Your task to perform on an android device: Add "alienware area 51" to the cart on amazon Image 0: 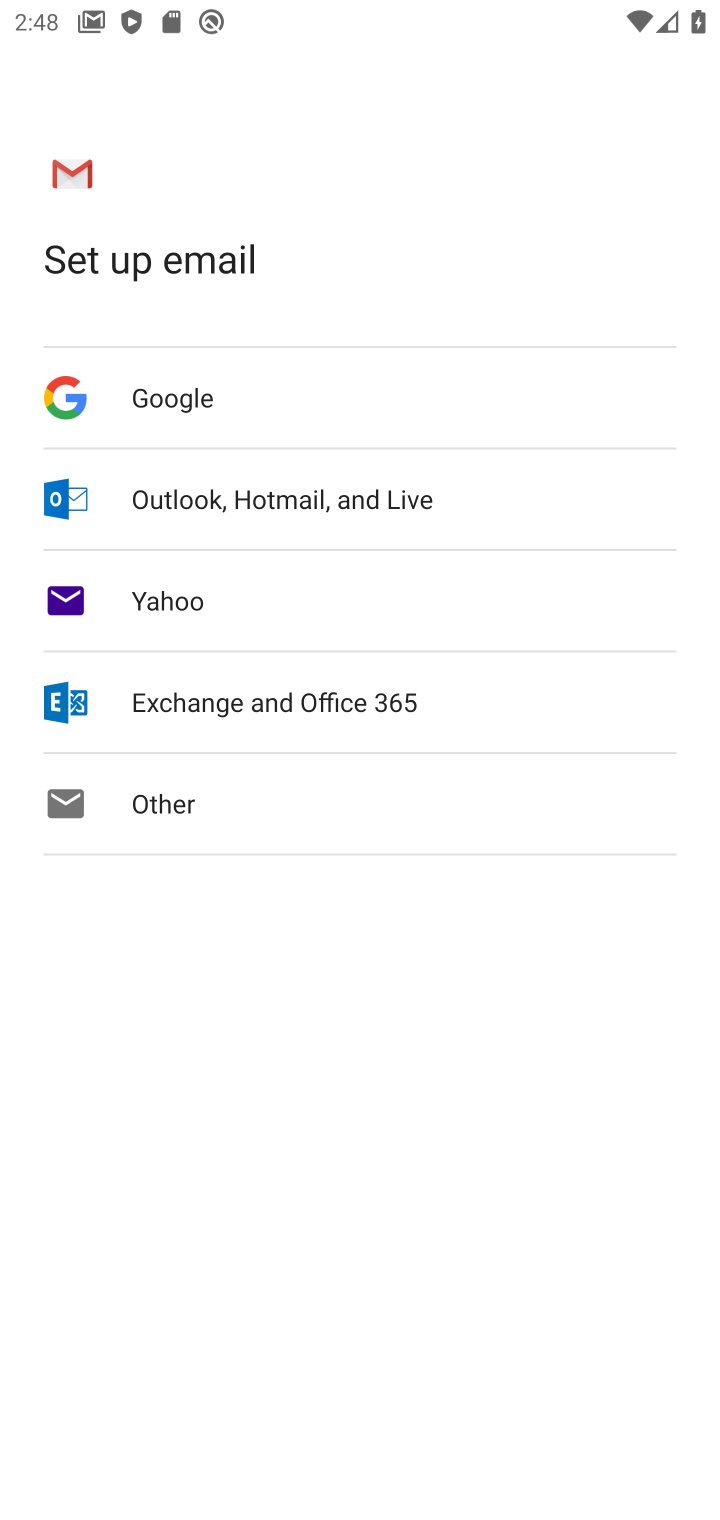
Step 0: press home button
Your task to perform on an android device: Add "alienware area 51" to the cart on amazon Image 1: 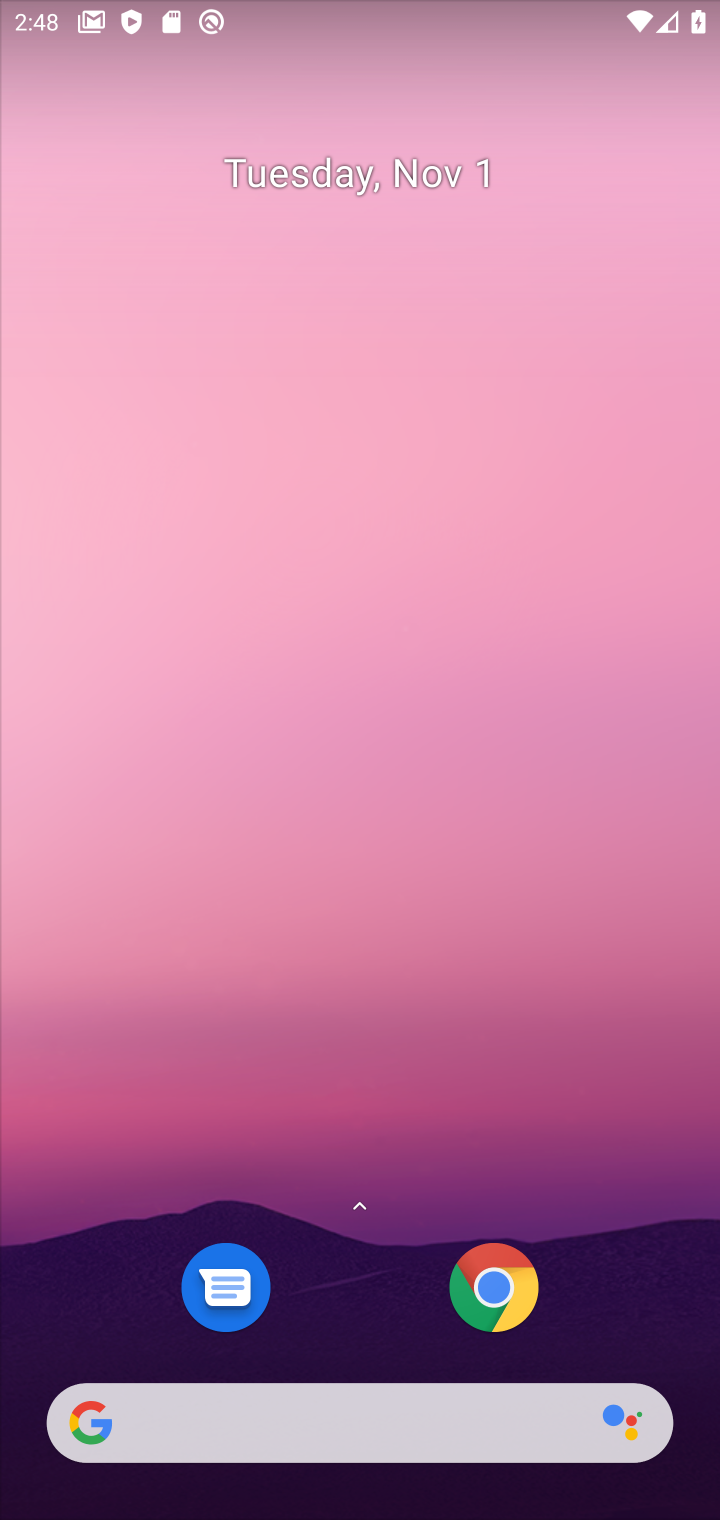
Step 1: drag from (342, 1276) to (617, 8)
Your task to perform on an android device: Add "alienware area 51" to the cart on amazon Image 2: 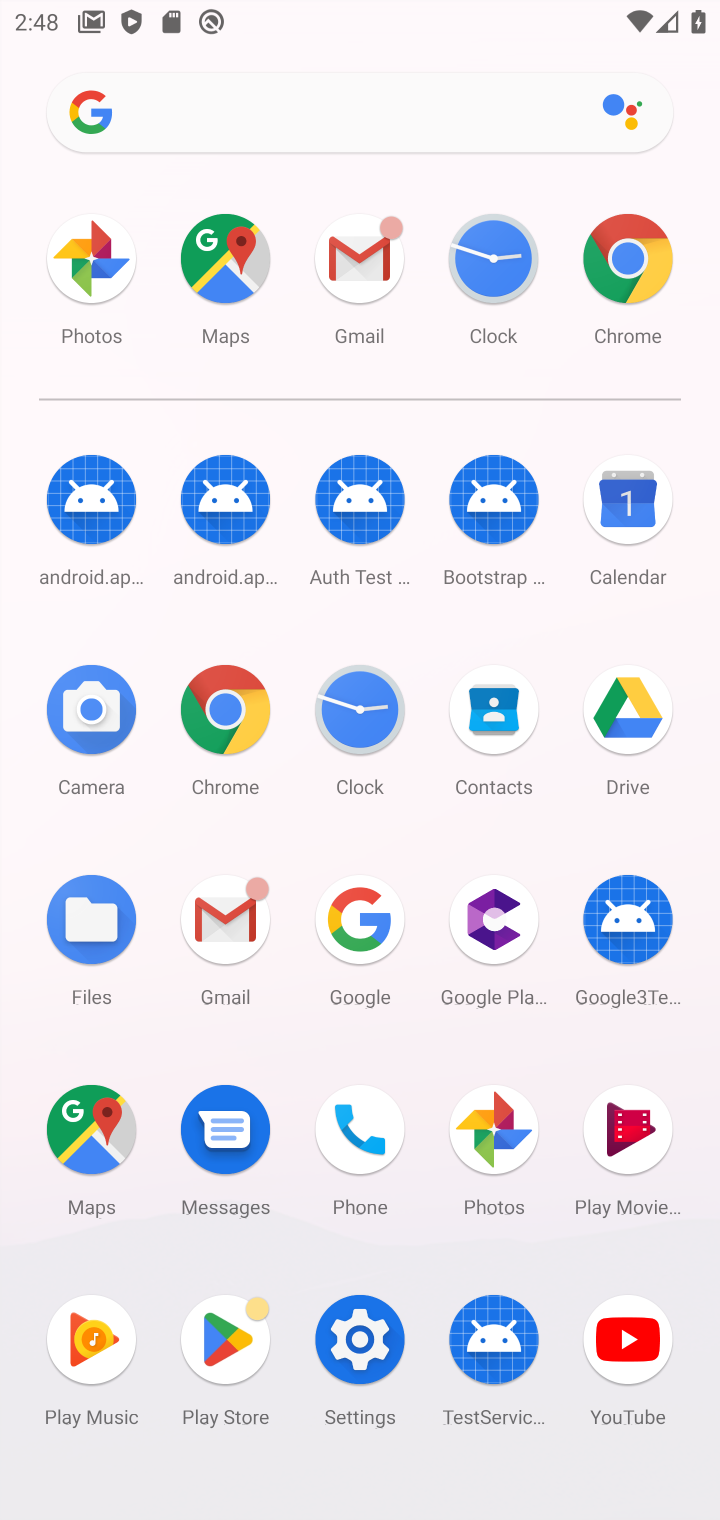
Step 2: click (235, 713)
Your task to perform on an android device: Add "alienware area 51" to the cart on amazon Image 3: 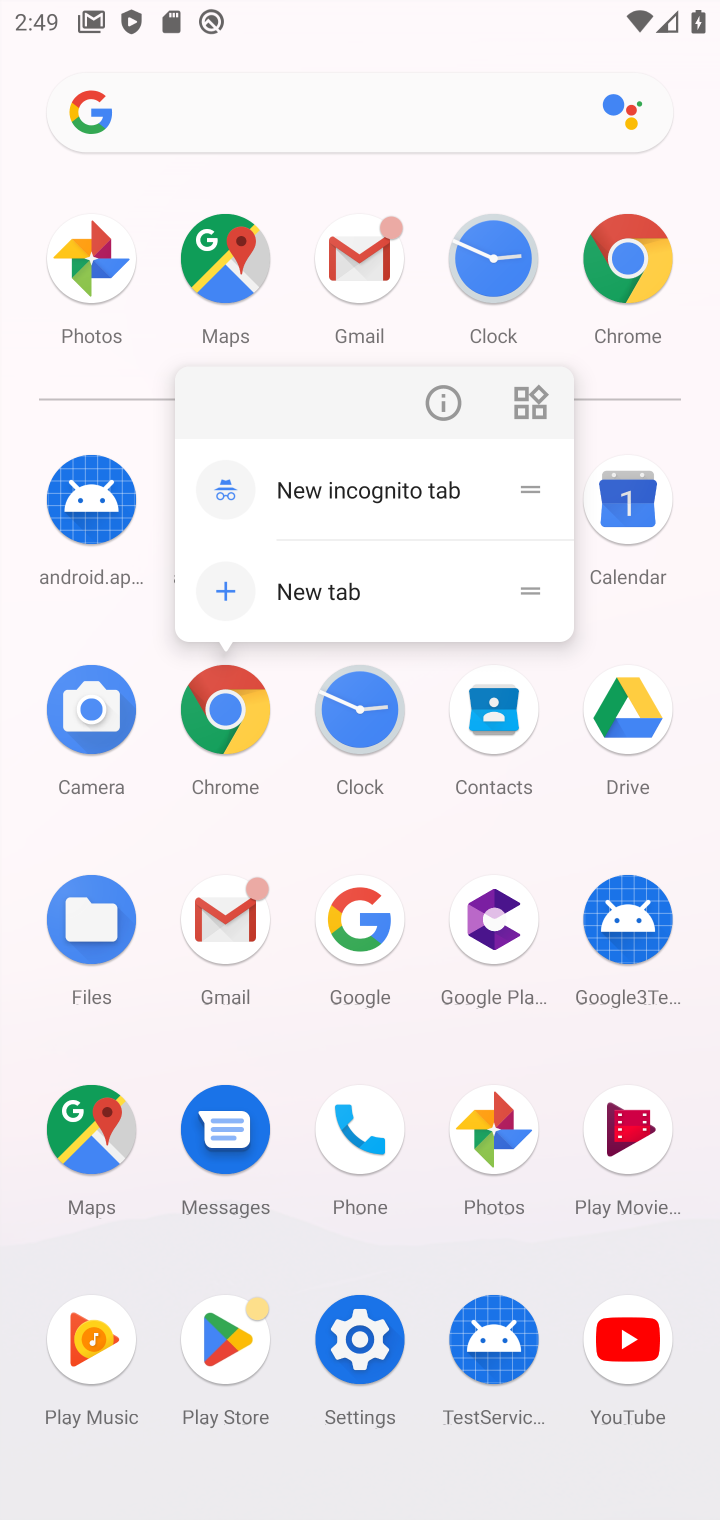
Step 3: click (235, 713)
Your task to perform on an android device: Add "alienware area 51" to the cart on amazon Image 4: 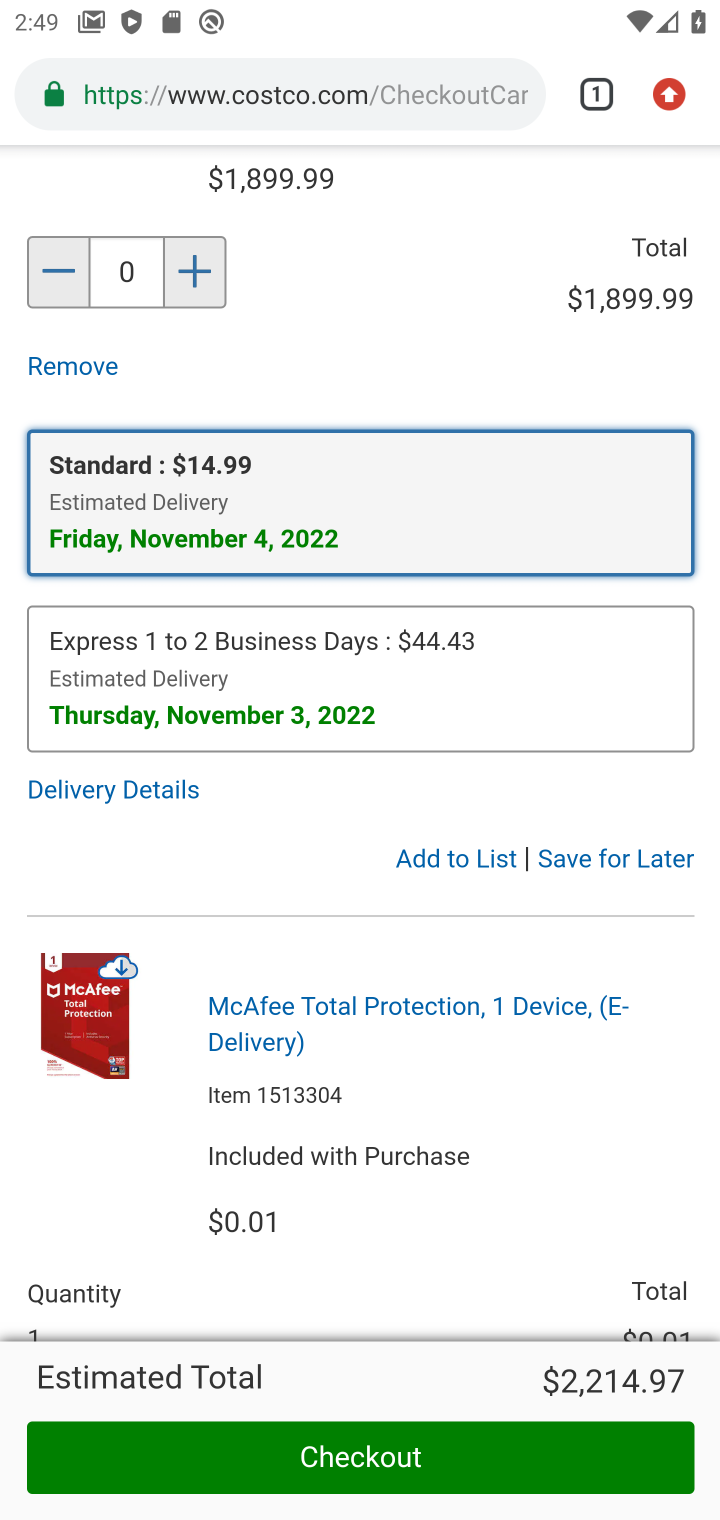
Step 4: click (401, 94)
Your task to perform on an android device: Add "alienware area 51" to the cart on amazon Image 5: 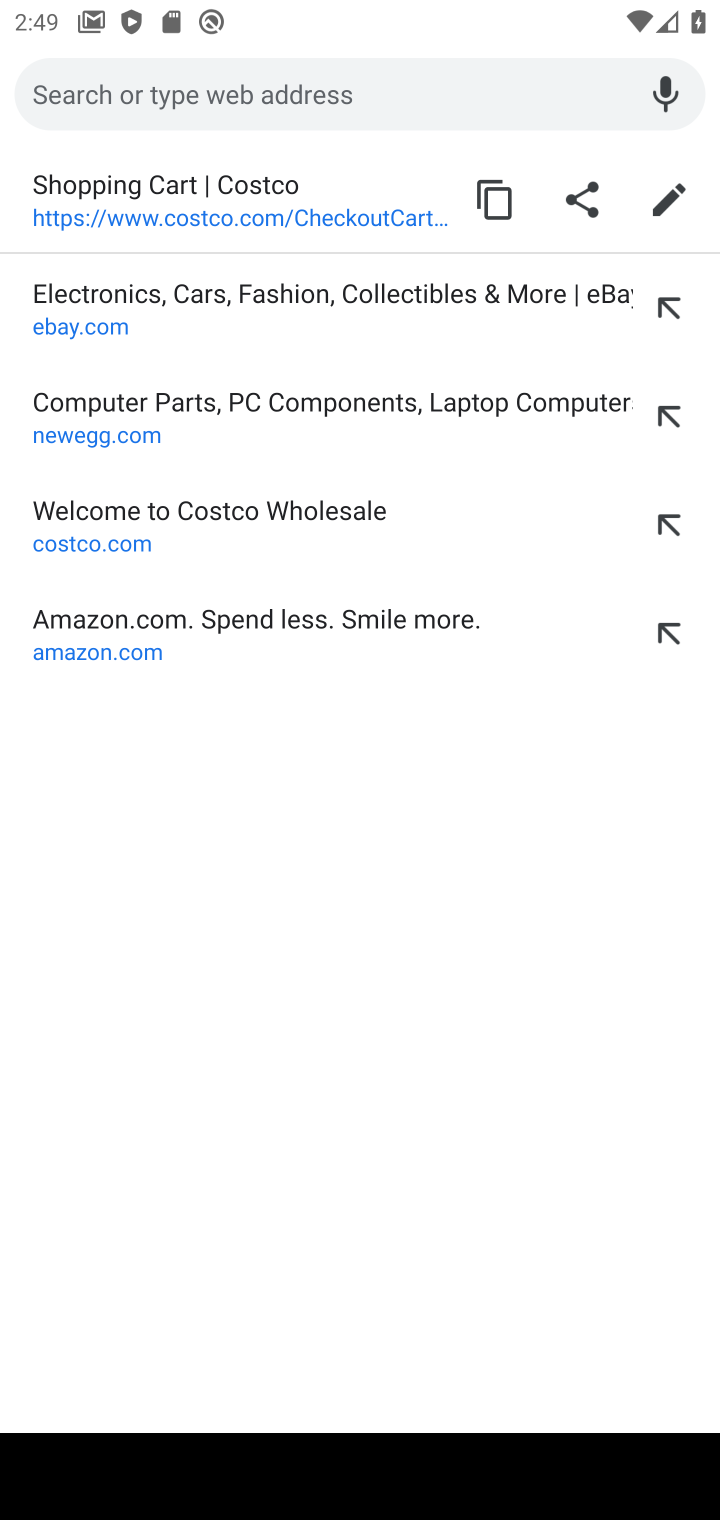
Step 5: type "amazon.com"
Your task to perform on an android device: Add "alienware area 51" to the cart on amazon Image 6: 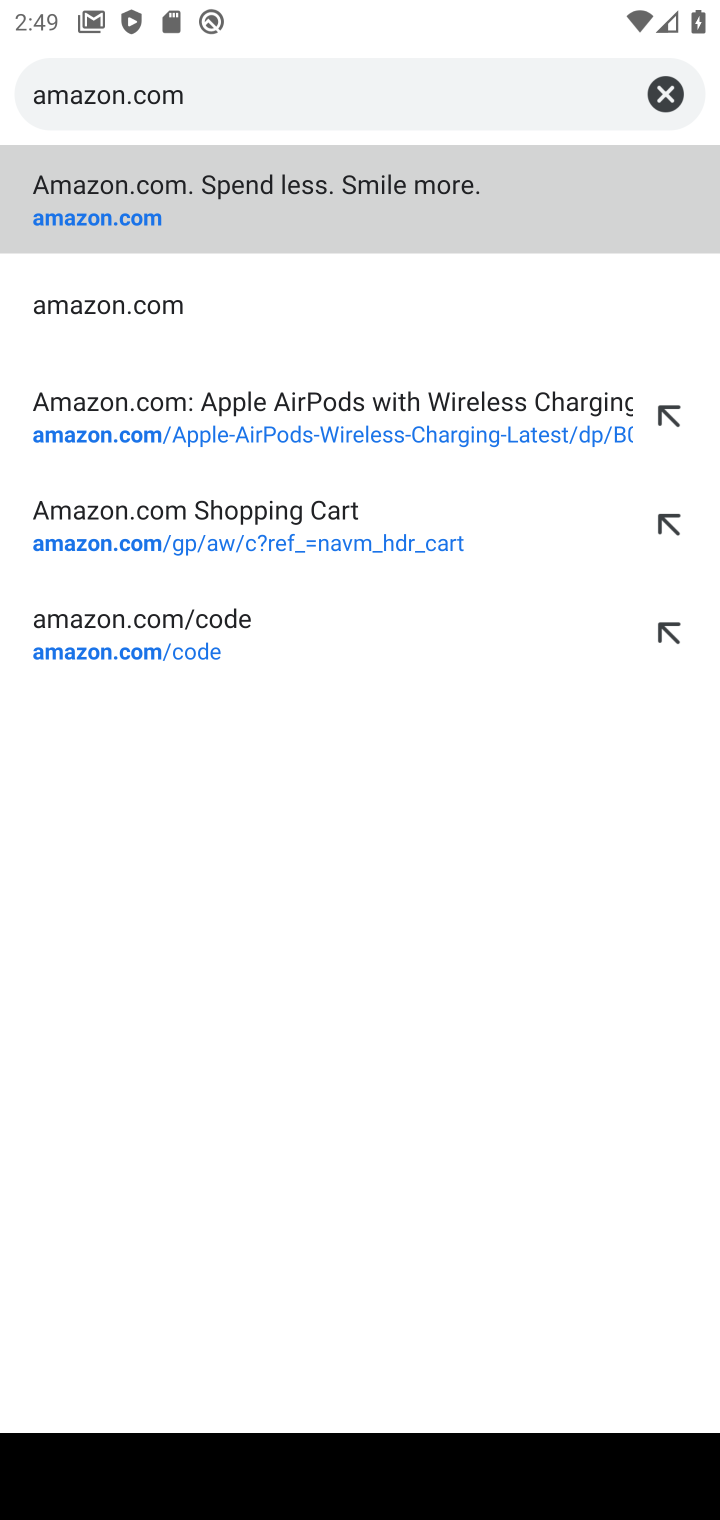
Step 6: press enter
Your task to perform on an android device: Add "alienware area 51" to the cart on amazon Image 7: 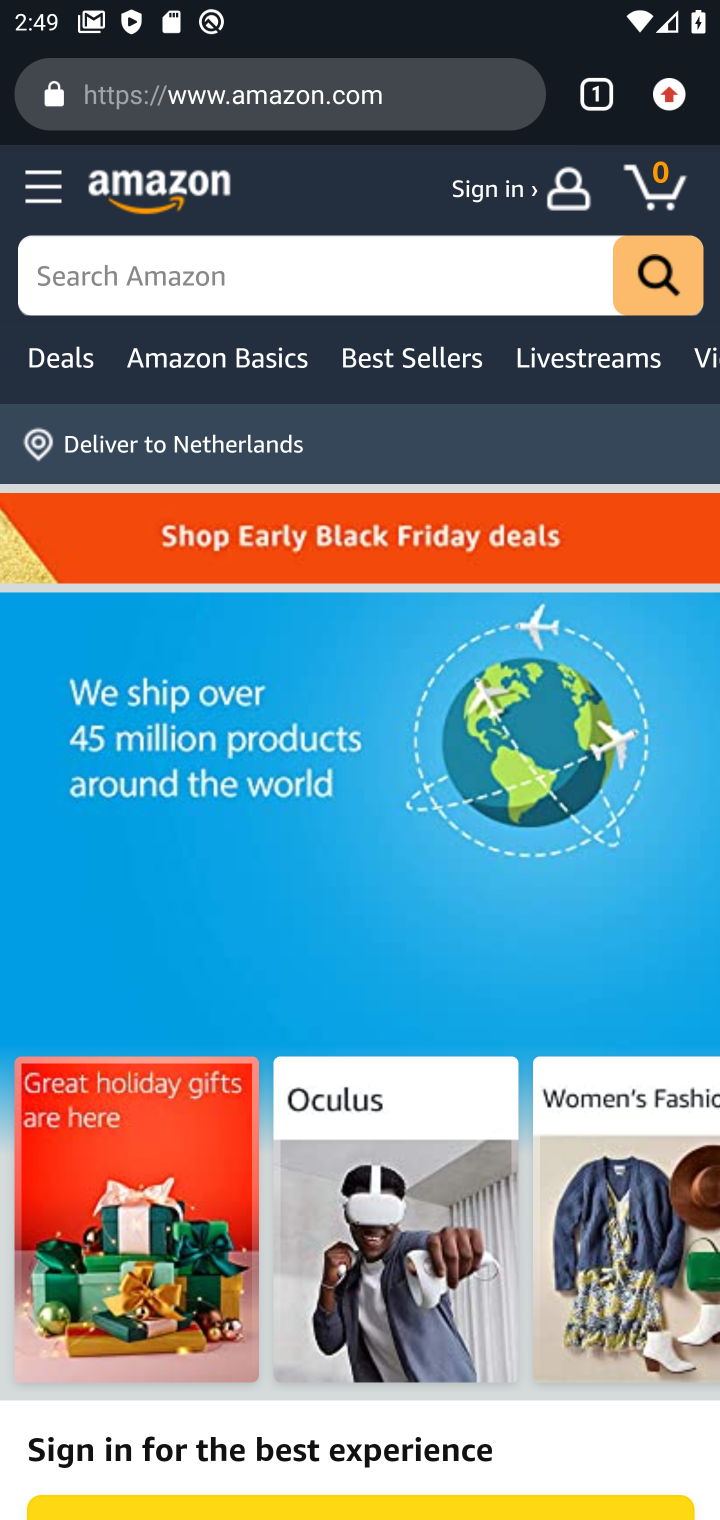
Step 7: click (428, 259)
Your task to perform on an android device: Add "alienware area 51" to the cart on amazon Image 8: 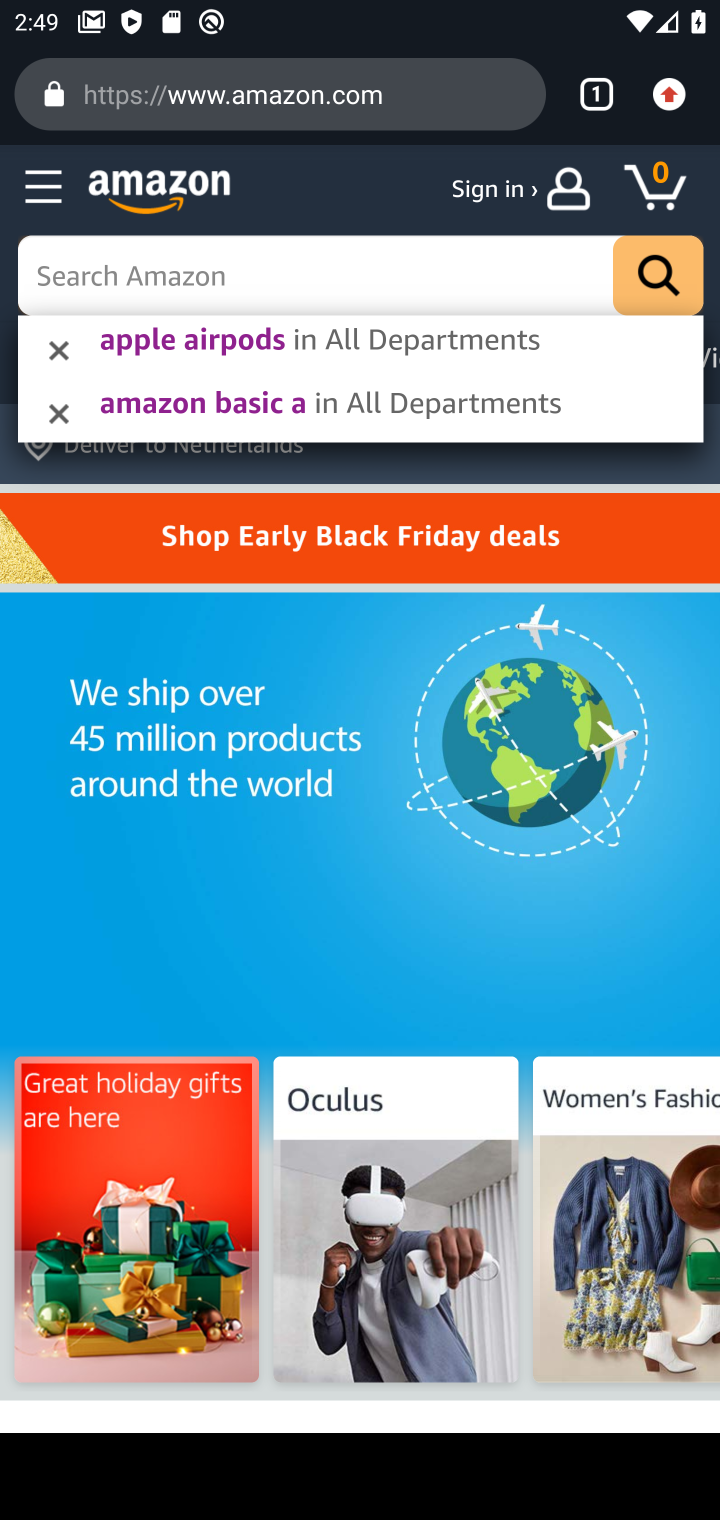
Step 8: type "alienware area 51"
Your task to perform on an android device: Add "alienware area 51" to the cart on amazon Image 9: 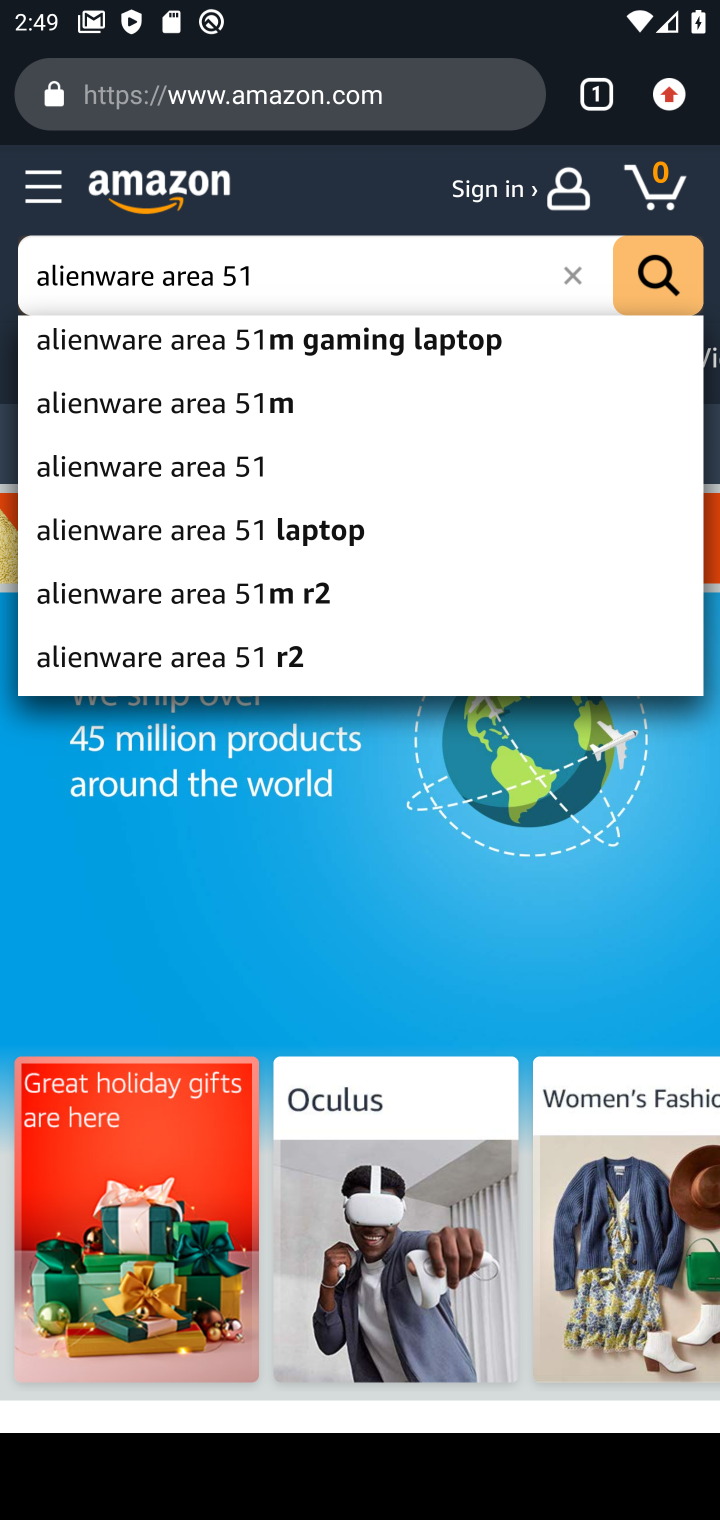
Step 9: press enter
Your task to perform on an android device: Add "alienware area 51" to the cart on amazon Image 10: 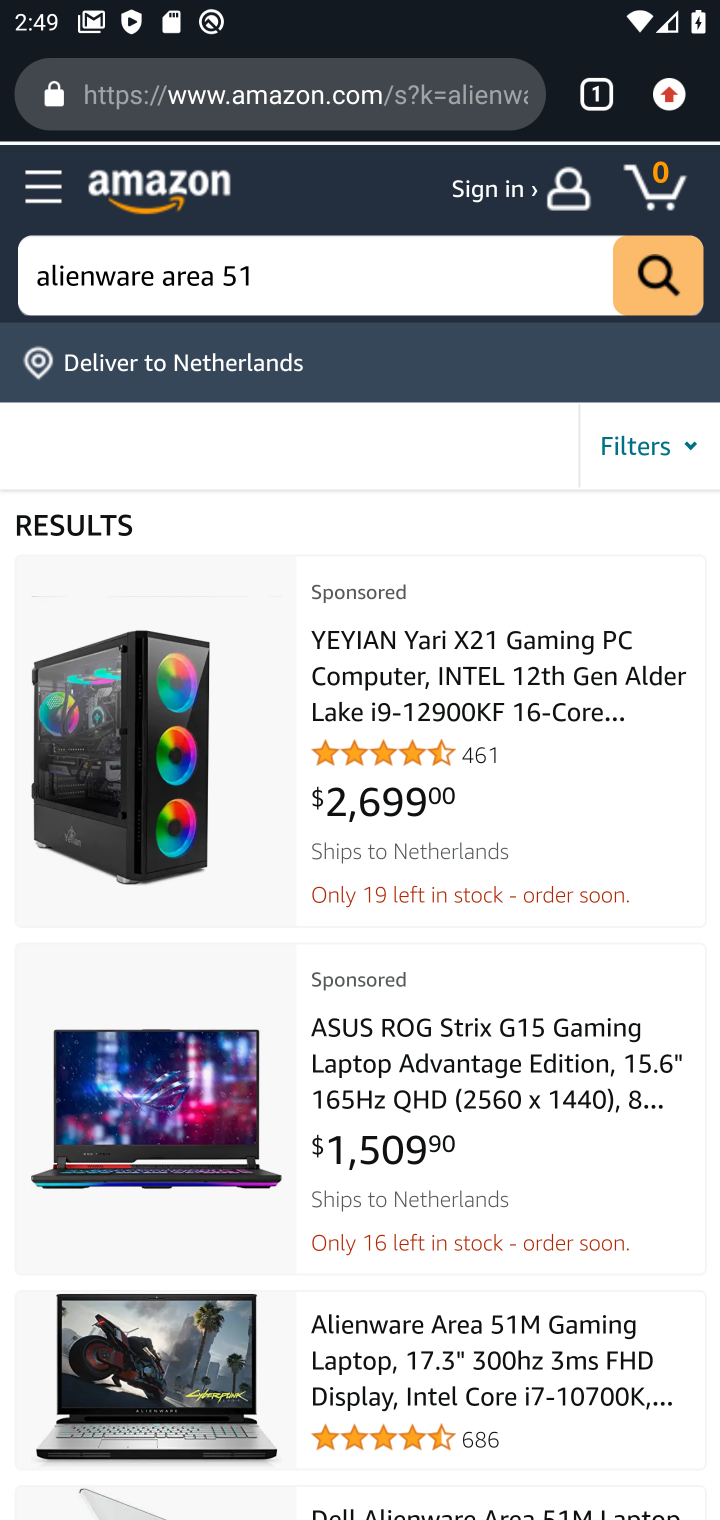
Step 10: drag from (381, 1138) to (402, 621)
Your task to perform on an android device: Add "alienware area 51" to the cart on amazon Image 11: 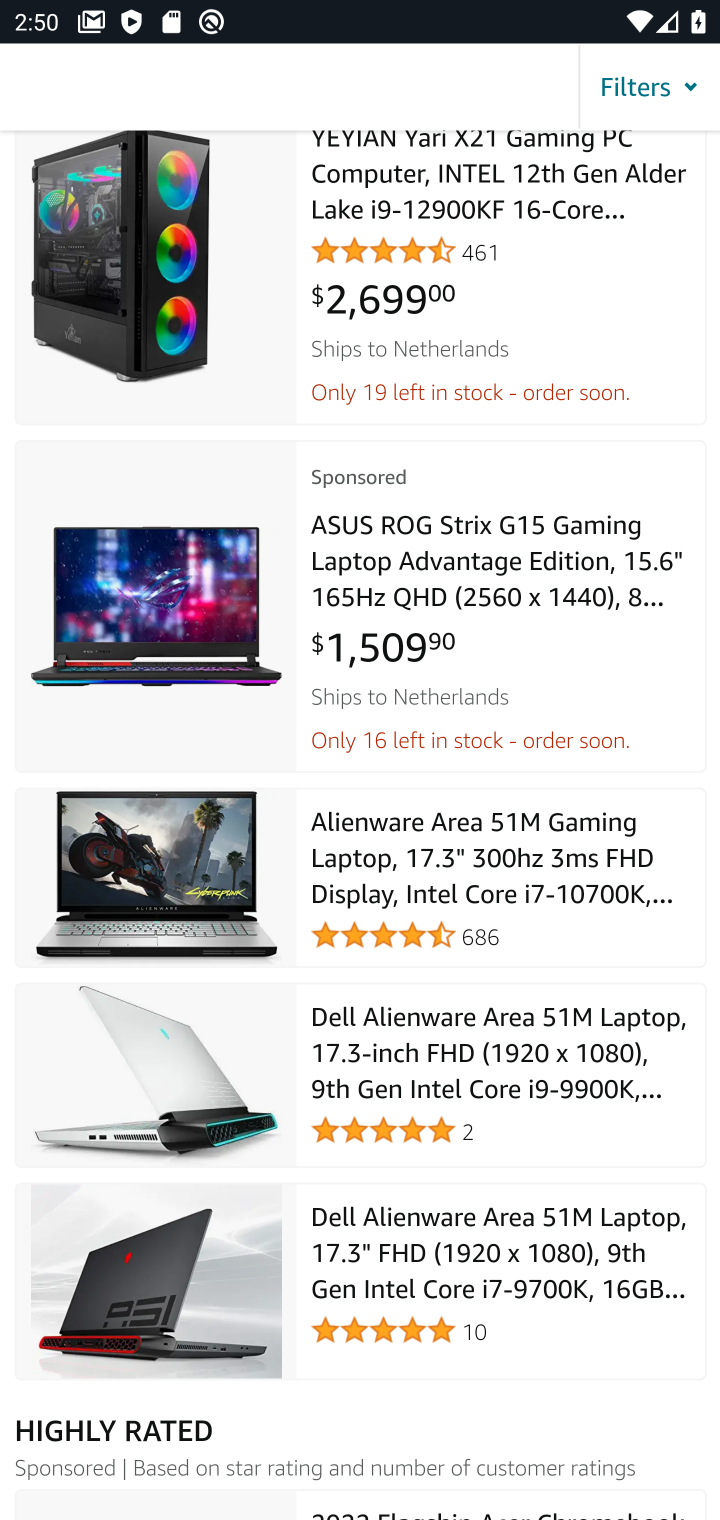
Step 11: click (407, 862)
Your task to perform on an android device: Add "alienware area 51" to the cart on amazon Image 12: 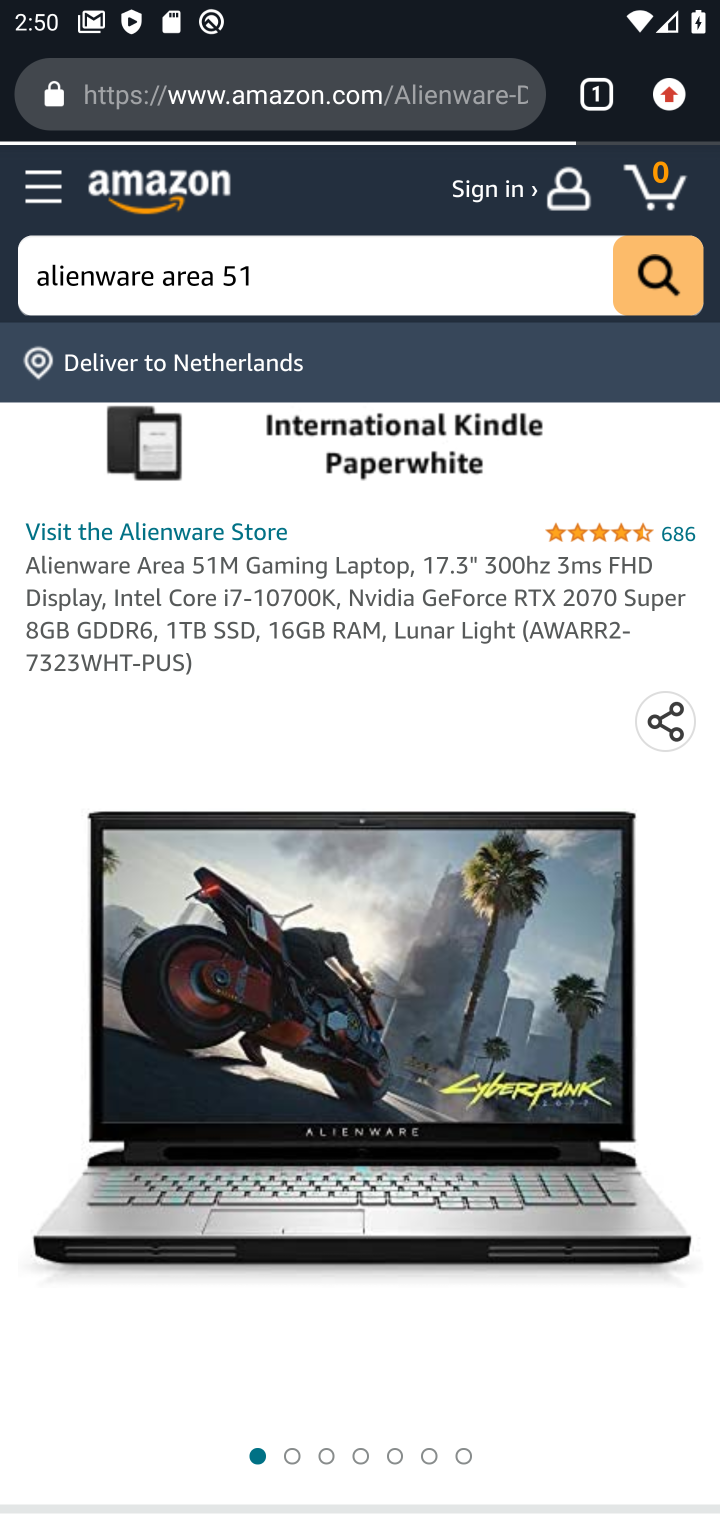
Step 12: task complete